Your task to perform on an android device: Open the web browser Image 0: 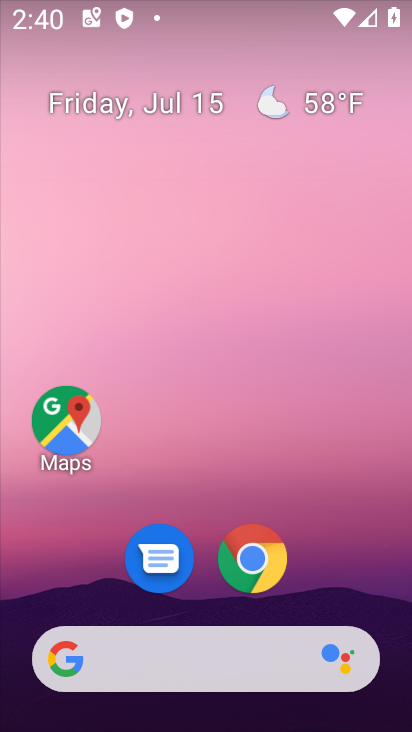
Step 0: drag from (348, 563) to (355, 158)
Your task to perform on an android device: Open the web browser Image 1: 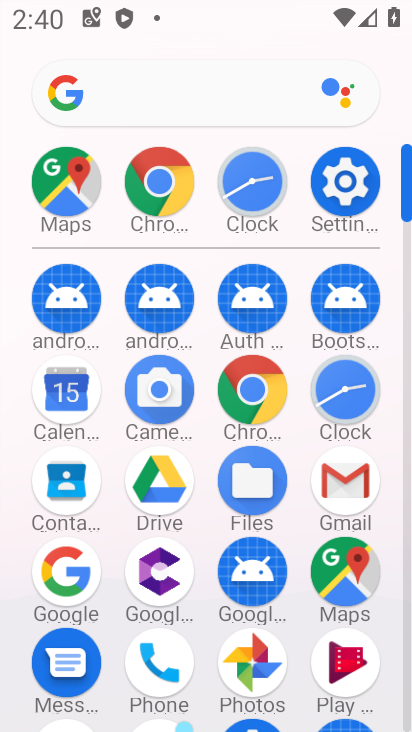
Step 1: click (252, 385)
Your task to perform on an android device: Open the web browser Image 2: 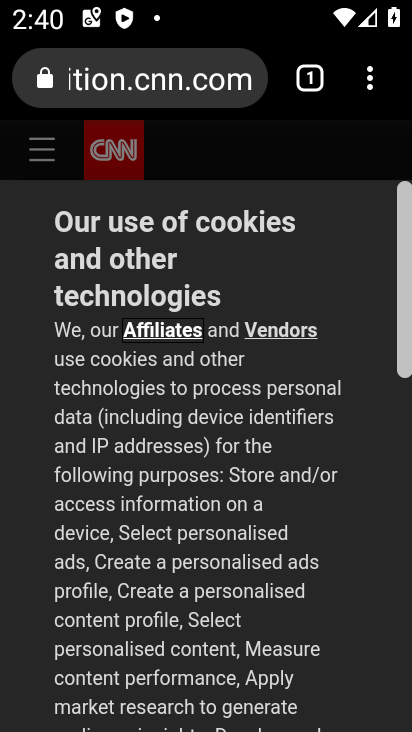
Step 2: task complete